Your task to perform on an android device: change the clock style Image 0: 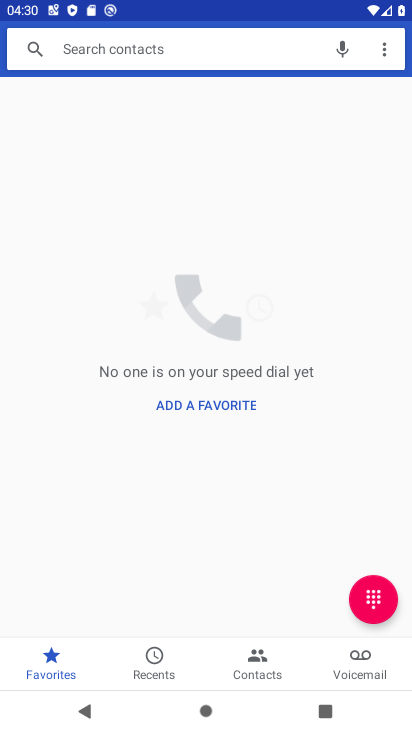
Step 0: press back button
Your task to perform on an android device: change the clock style Image 1: 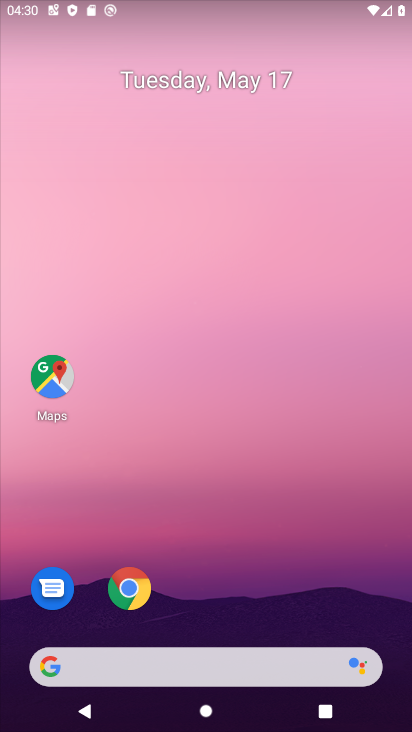
Step 1: drag from (213, 572) to (172, 134)
Your task to perform on an android device: change the clock style Image 2: 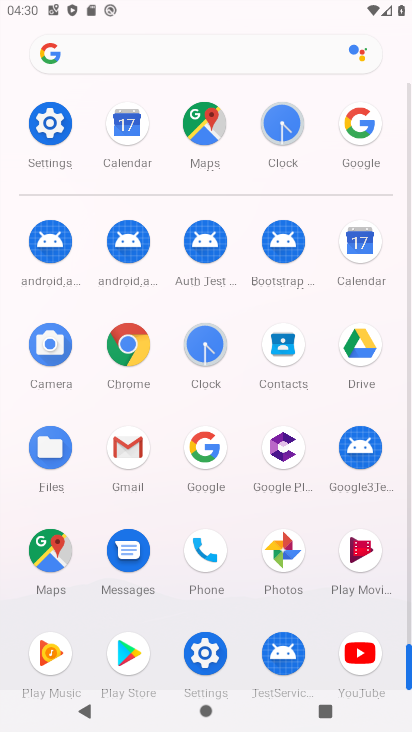
Step 2: click (282, 123)
Your task to perform on an android device: change the clock style Image 3: 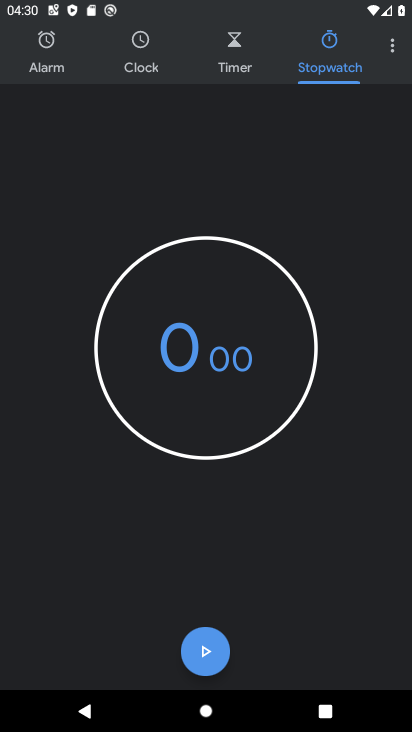
Step 3: click (394, 44)
Your task to perform on an android device: change the clock style Image 4: 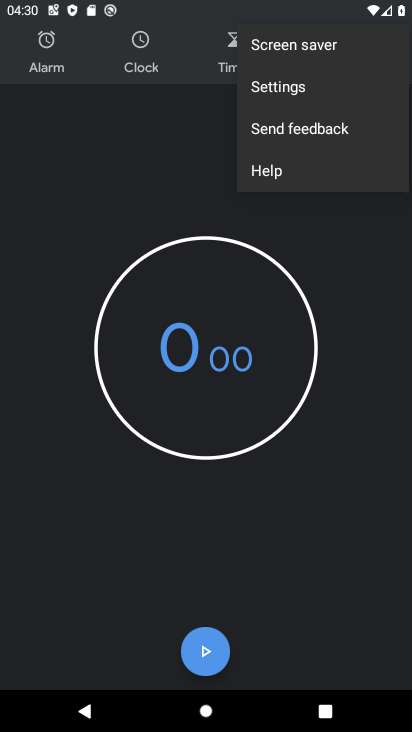
Step 4: click (301, 88)
Your task to perform on an android device: change the clock style Image 5: 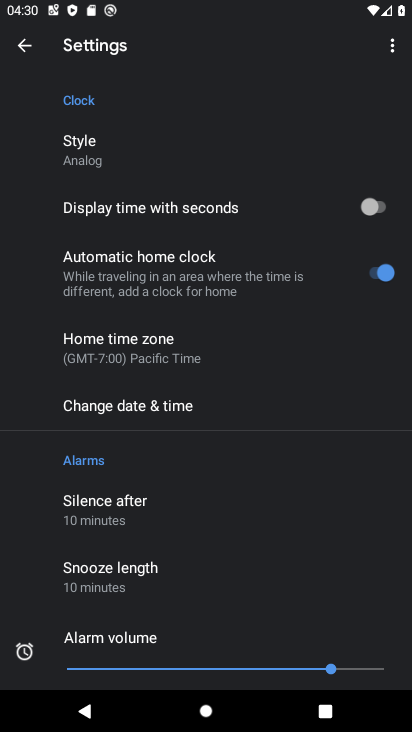
Step 5: drag from (239, 362) to (262, 270)
Your task to perform on an android device: change the clock style Image 6: 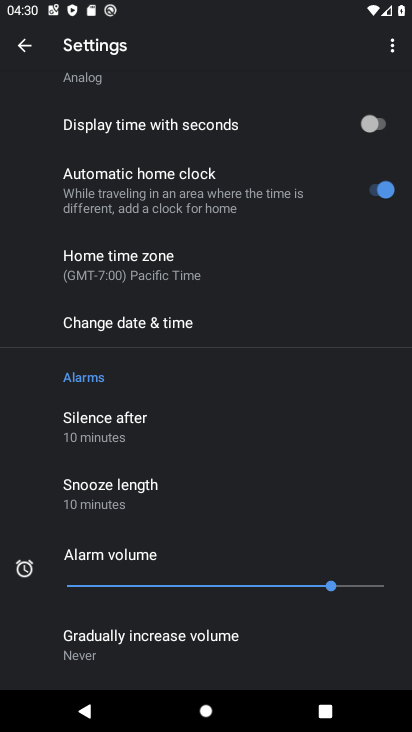
Step 6: drag from (249, 267) to (271, 419)
Your task to perform on an android device: change the clock style Image 7: 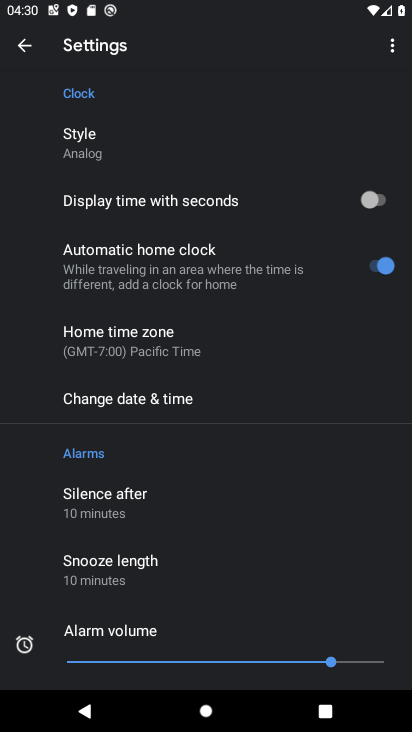
Step 7: click (102, 158)
Your task to perform on an android device: change the clock style Image 8: 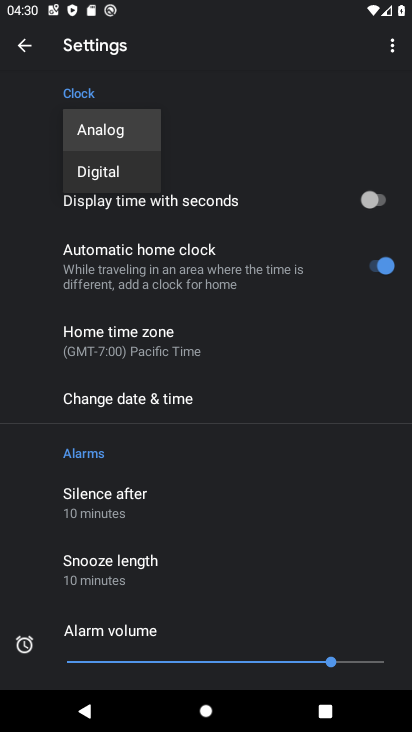
Step 8: click (103, 169)
Your task to perform on an android device: change the clock style Image 9: 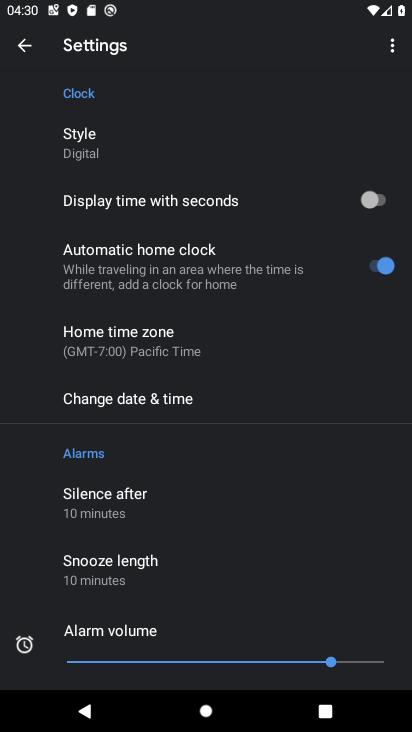
Step 9: task complete